Your task to perform on an android device: Show me popular videos on Youtube Image 0: 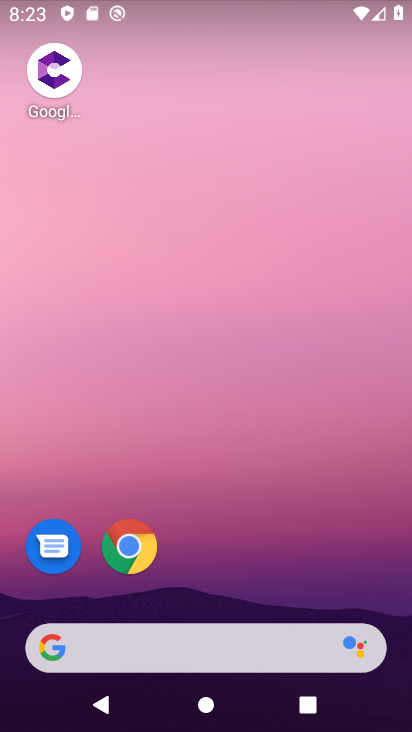
Step 0: drag from (193, 615) to (253, 118)
Your task to perform on an android device: Show me popular videos on Youtube Image 1: 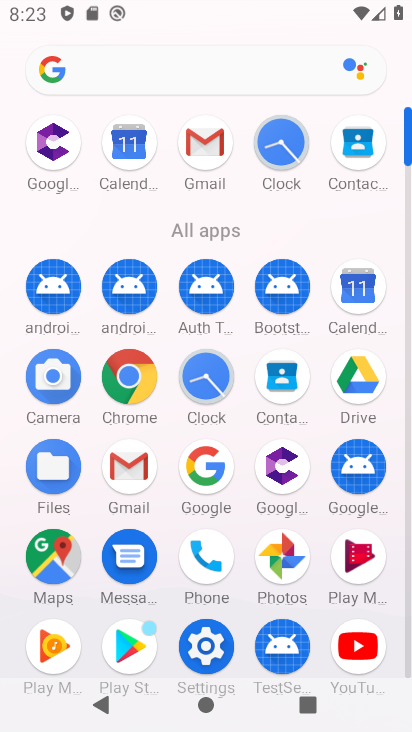
Step 1: click (336, 628)
Your task to perform on an android device: Show me popular videos on Youtube Image 2: 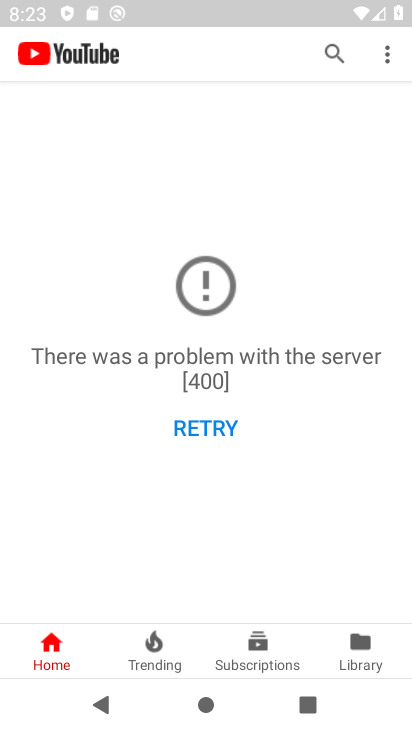
Step 2: click (355, 649)
Your task to perform on an android device: Show me popular videos on Youtube Image 3: 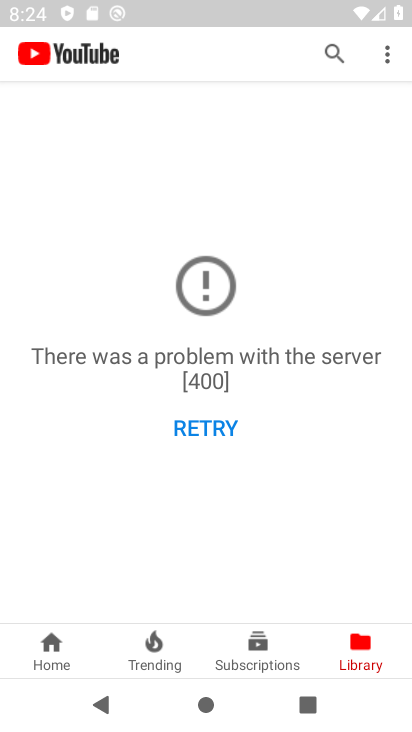
Step 3: task complete